Your task to perform on an android device: Open Google Chrome and click the shortcut for Amazon.com Image 0: 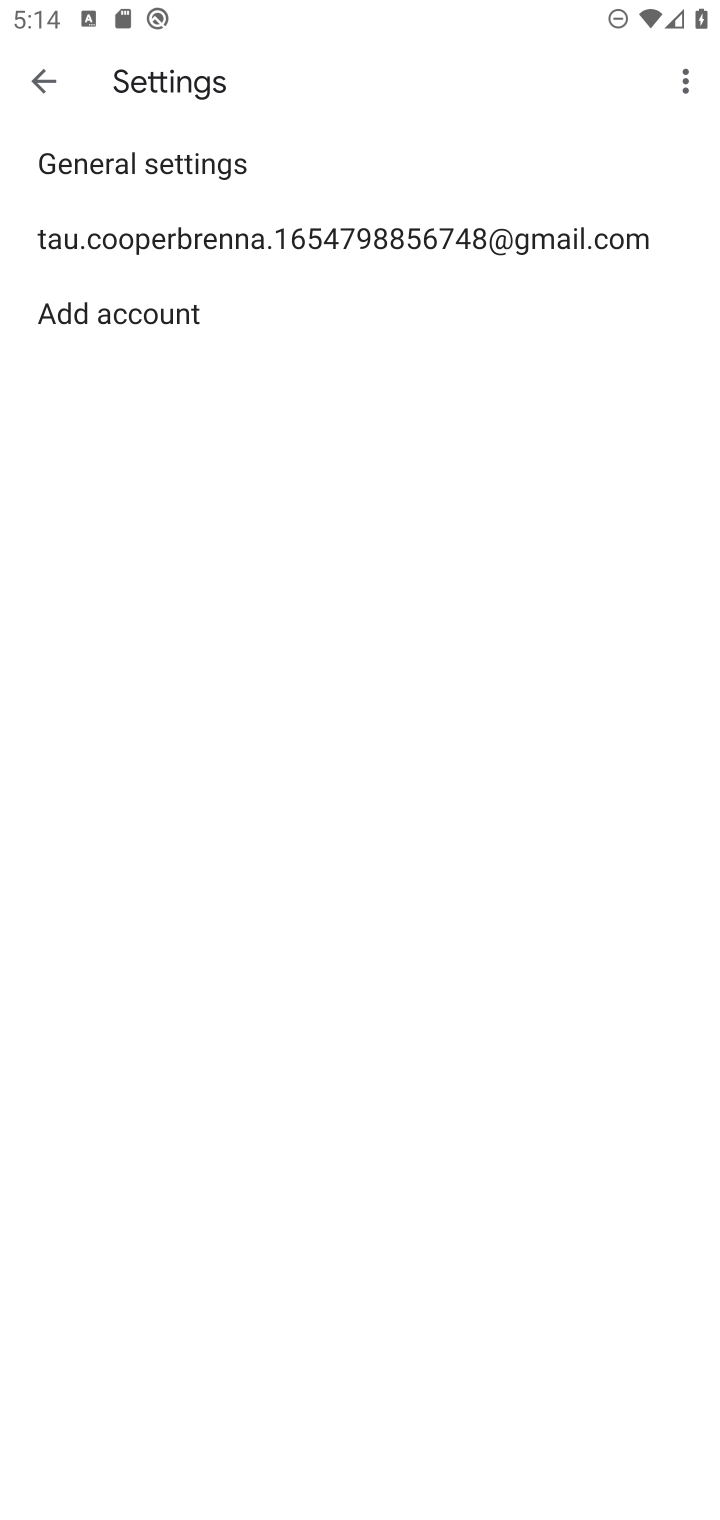
Step 0: press home button
Your task to perform on an android device: Open Google Chrome and click the shortcut for Amazon.com Image 1: 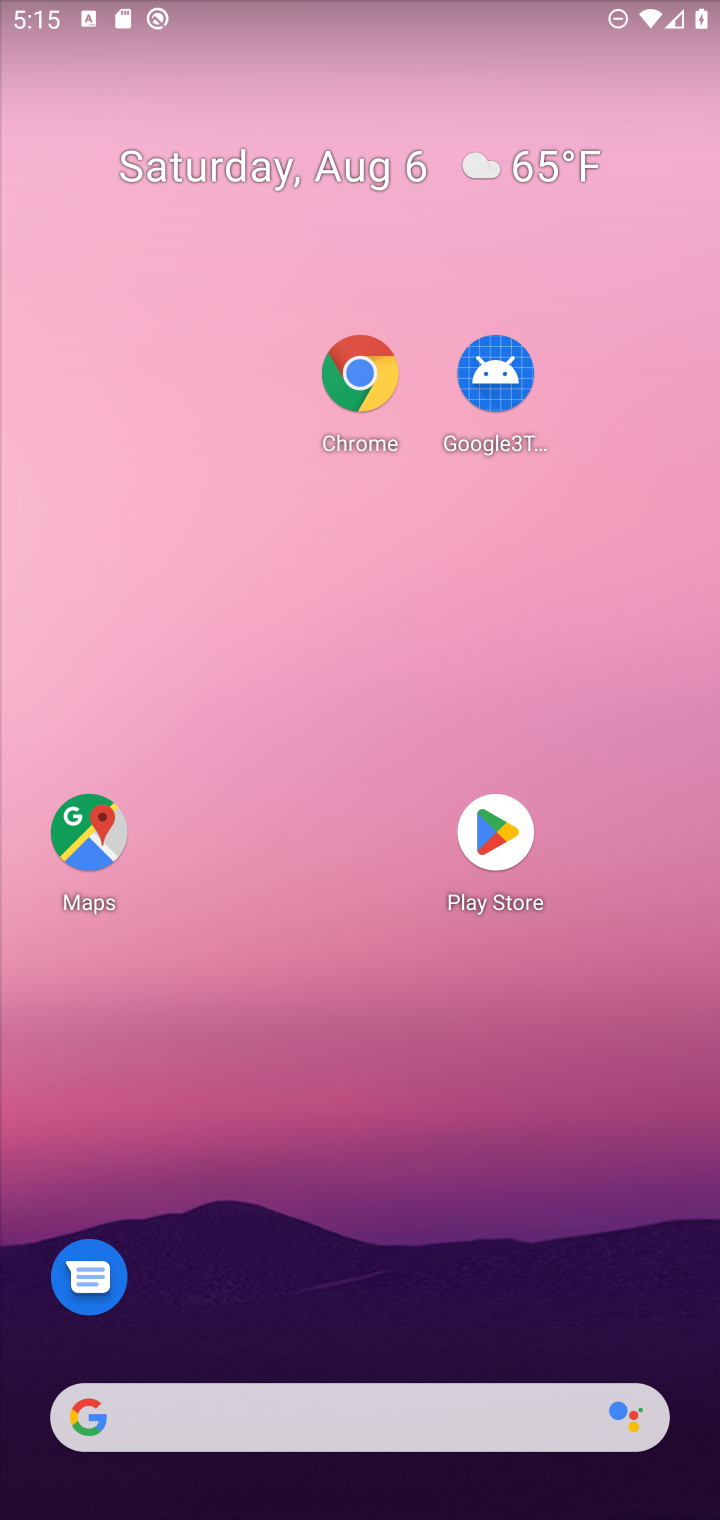
Step 1: drag from (416, 1408) to (418, 178)
Your task to perform on an android device: Open Google Chrome and click the shortcut for Amazon.com Image 2: 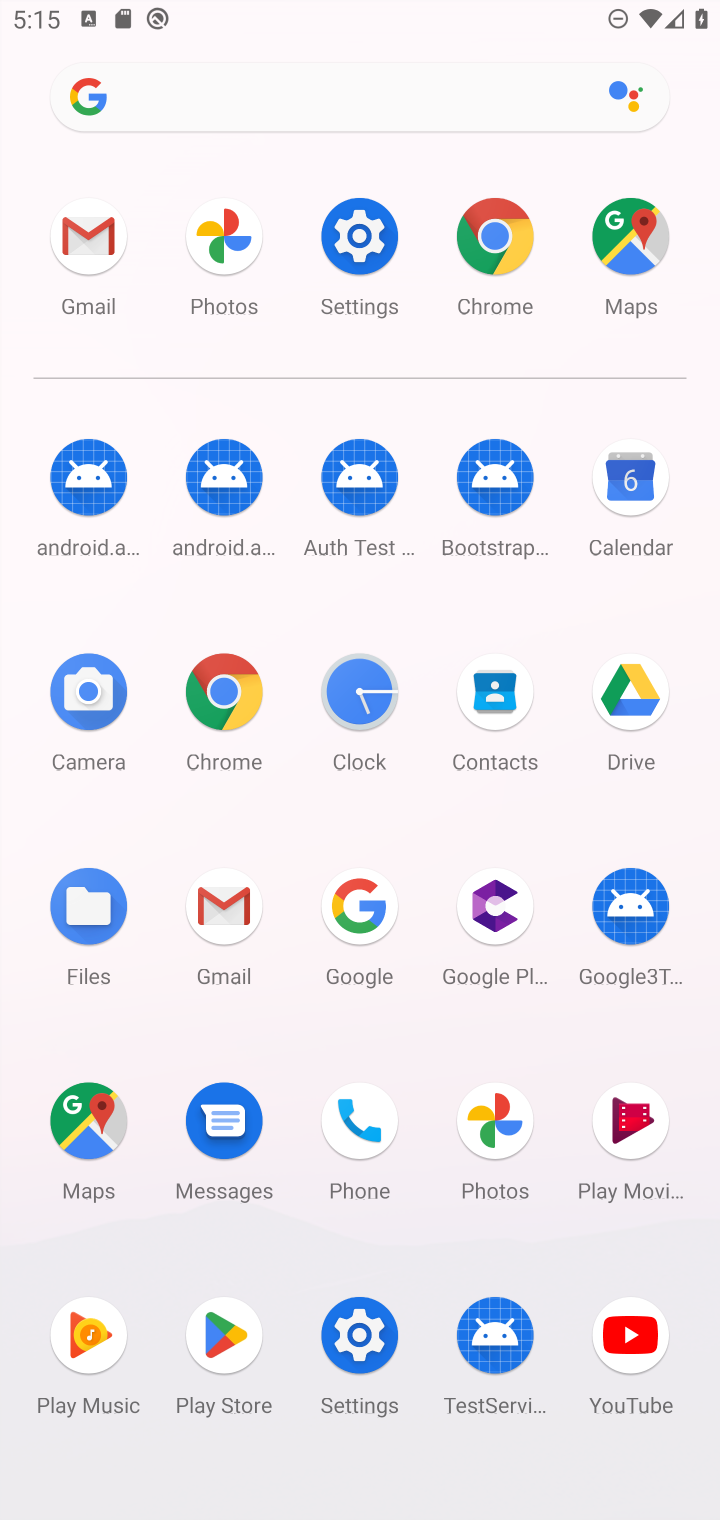
Step 2: click (223, 663)
Your task to perform on an android device: Open Google Chrome and click the shortcut for Amazon.com Image 3: 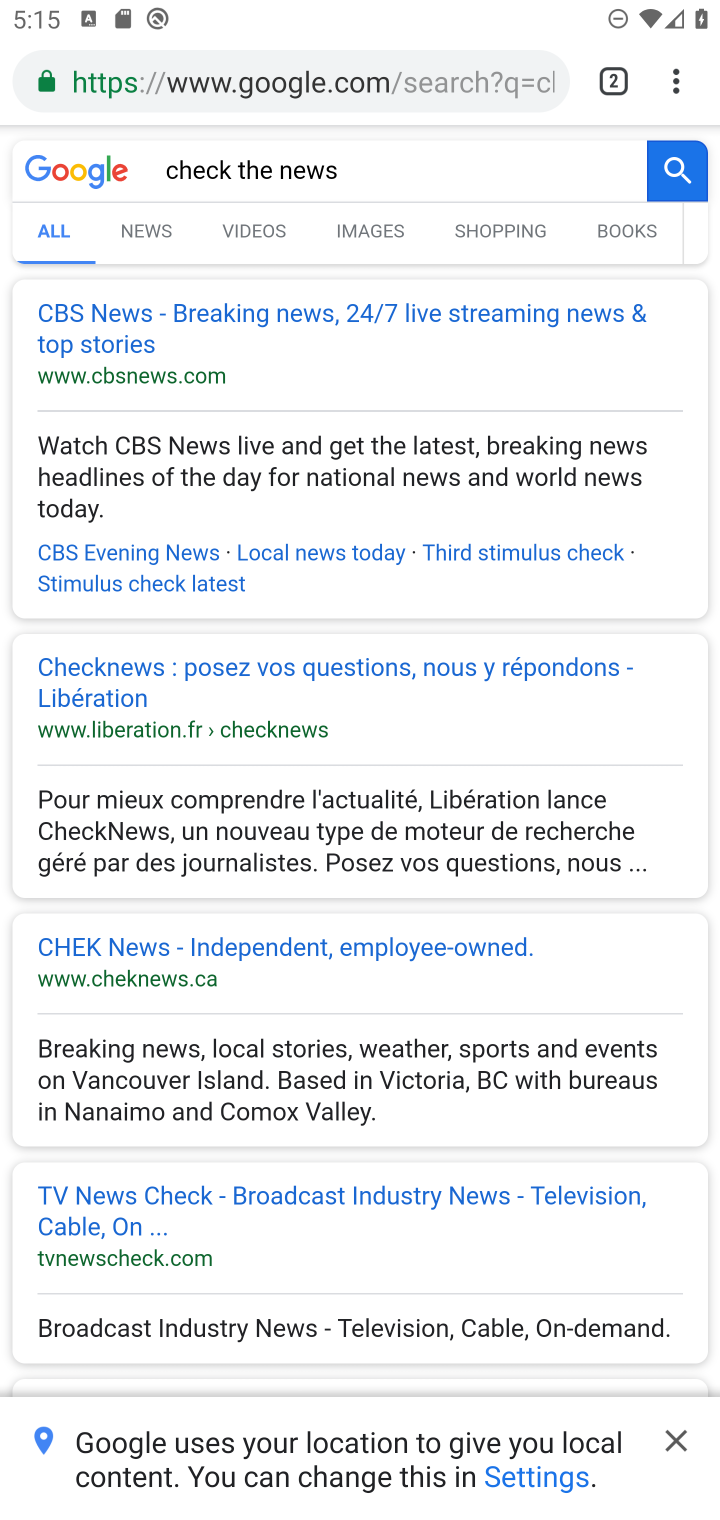
Step 3: drag from (659, 69) to (625, 161)
Your task to perform on an android device: Open Google Chrome and click the shortcut for Amazon.com Image 4: 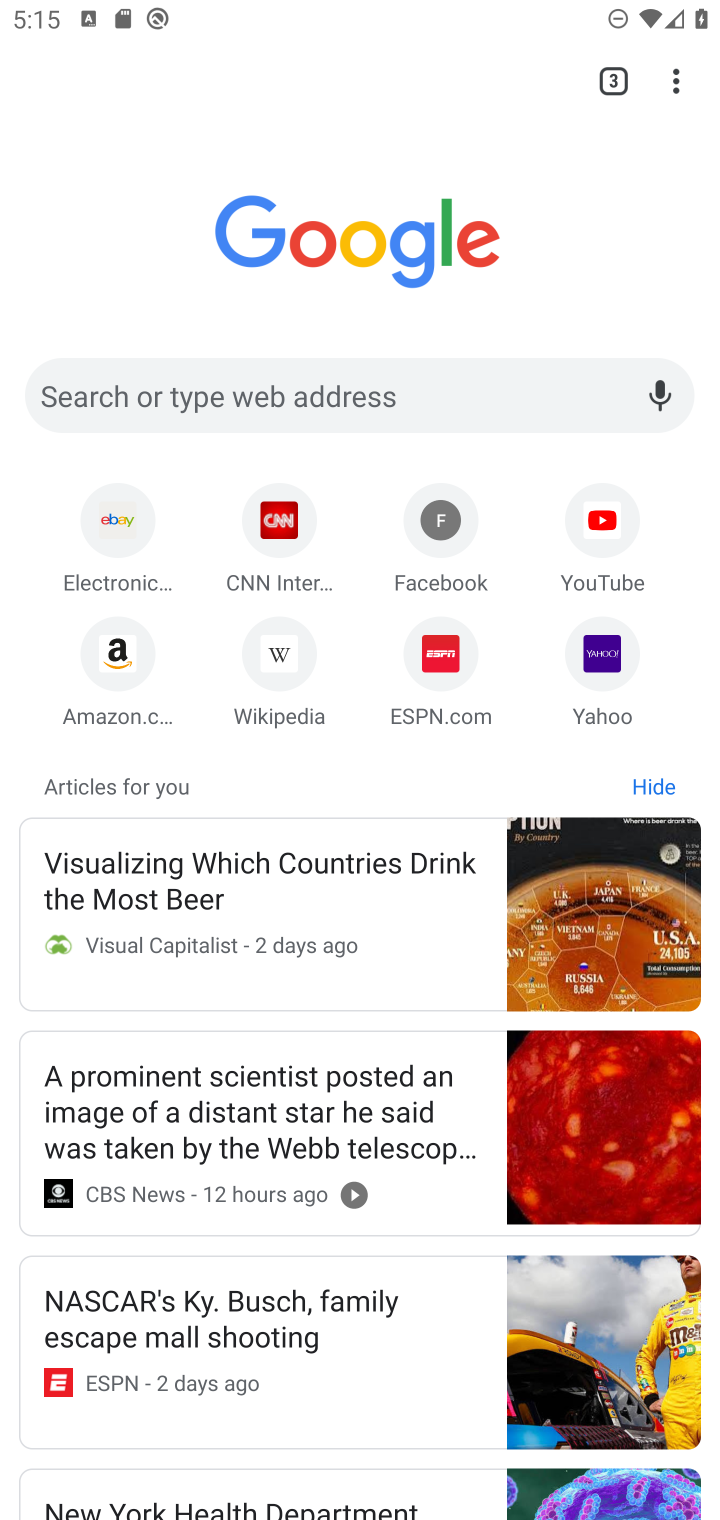
Step 4: click (145, 660)
Your task to perform on an android device: Open Google Chrome and click the shortcut for Amazon.com Image 5: 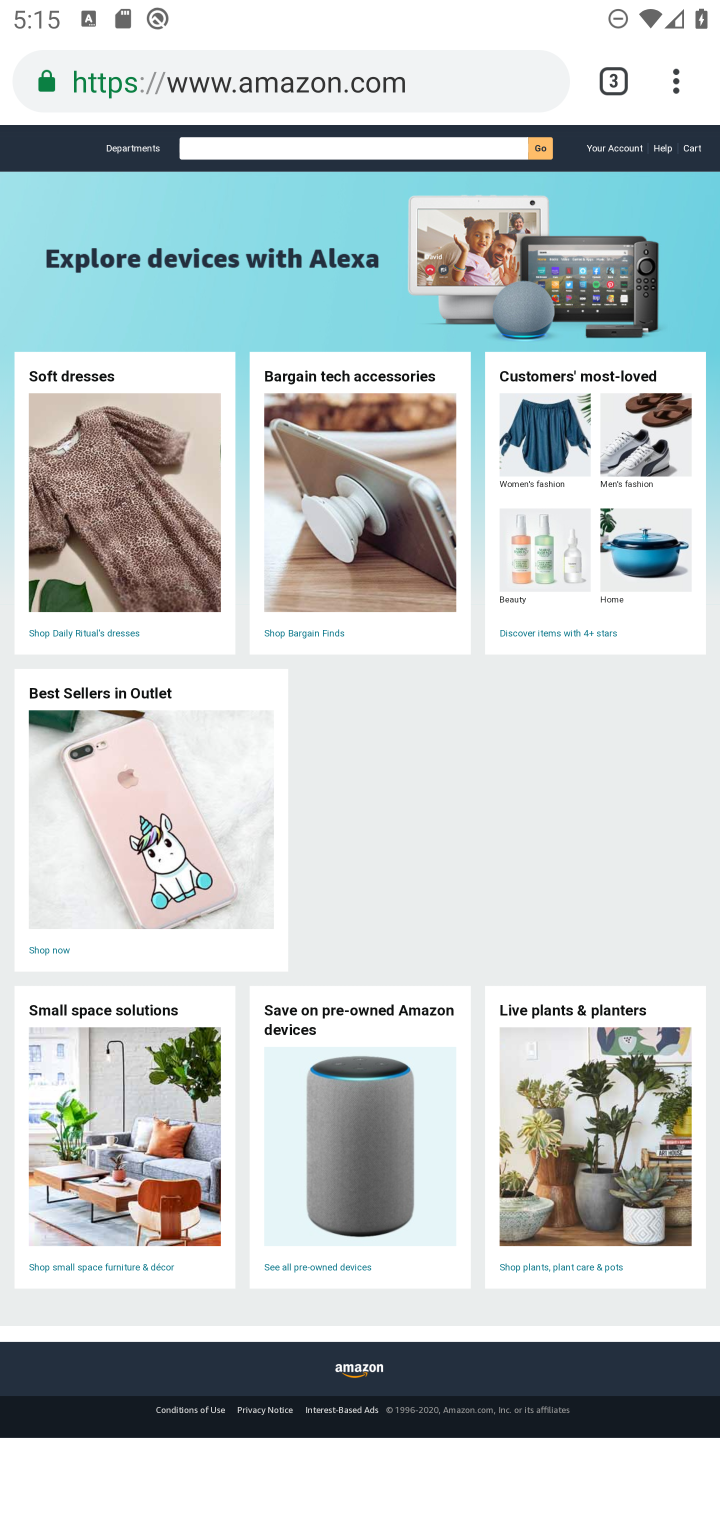
Step 5: drag from (678, 79) to (373, 832)
Your task to perform on an android device: Open Google Chrome and click the shortcut for Amazon.com Image 6: 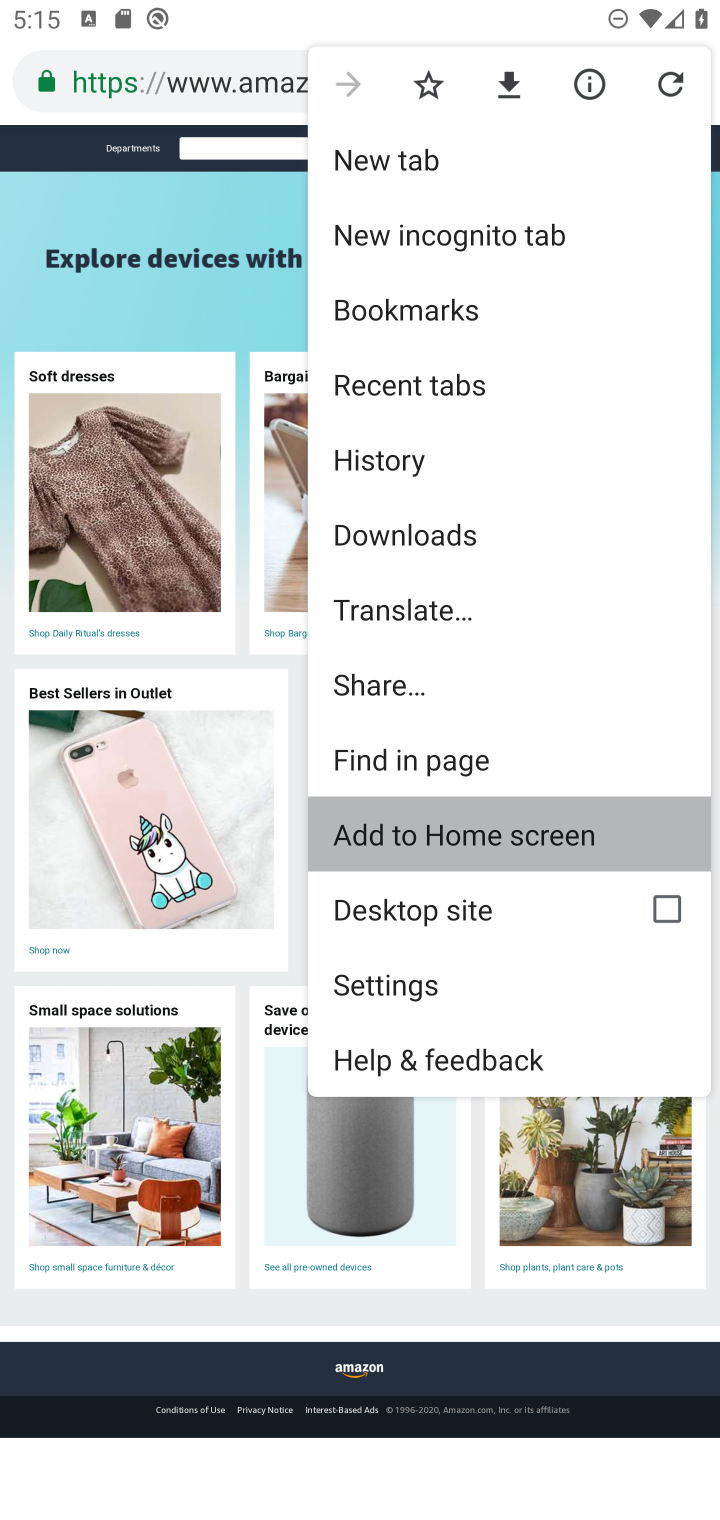
Step 6: click (373, 832)
Your task to perform on an android device: Open Google Chrome and click the shortcut for Amazon.com Image 7: 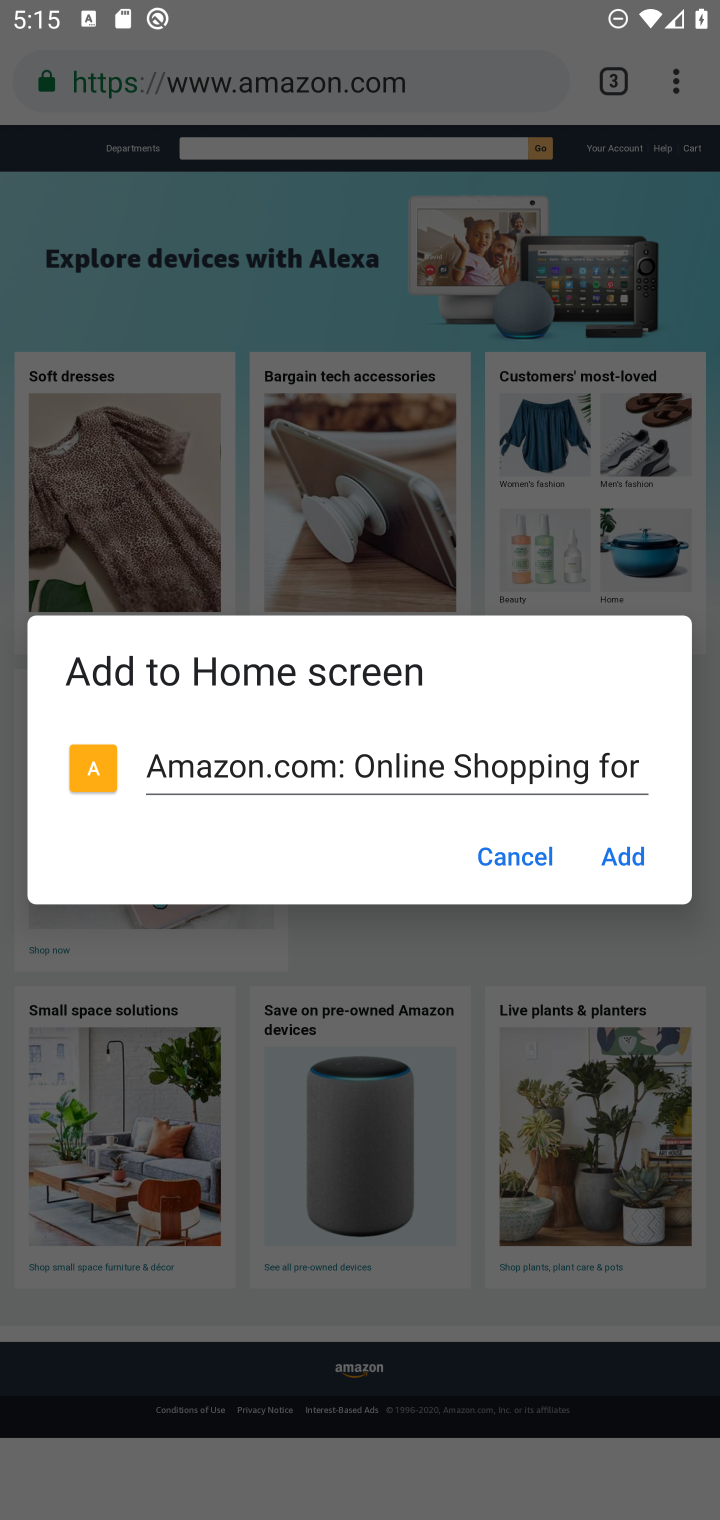
Step 7: click (621, 855)
Your task to perform on an android device: Open Google Chrome and click the shortcut for Amazon.com Image 8: 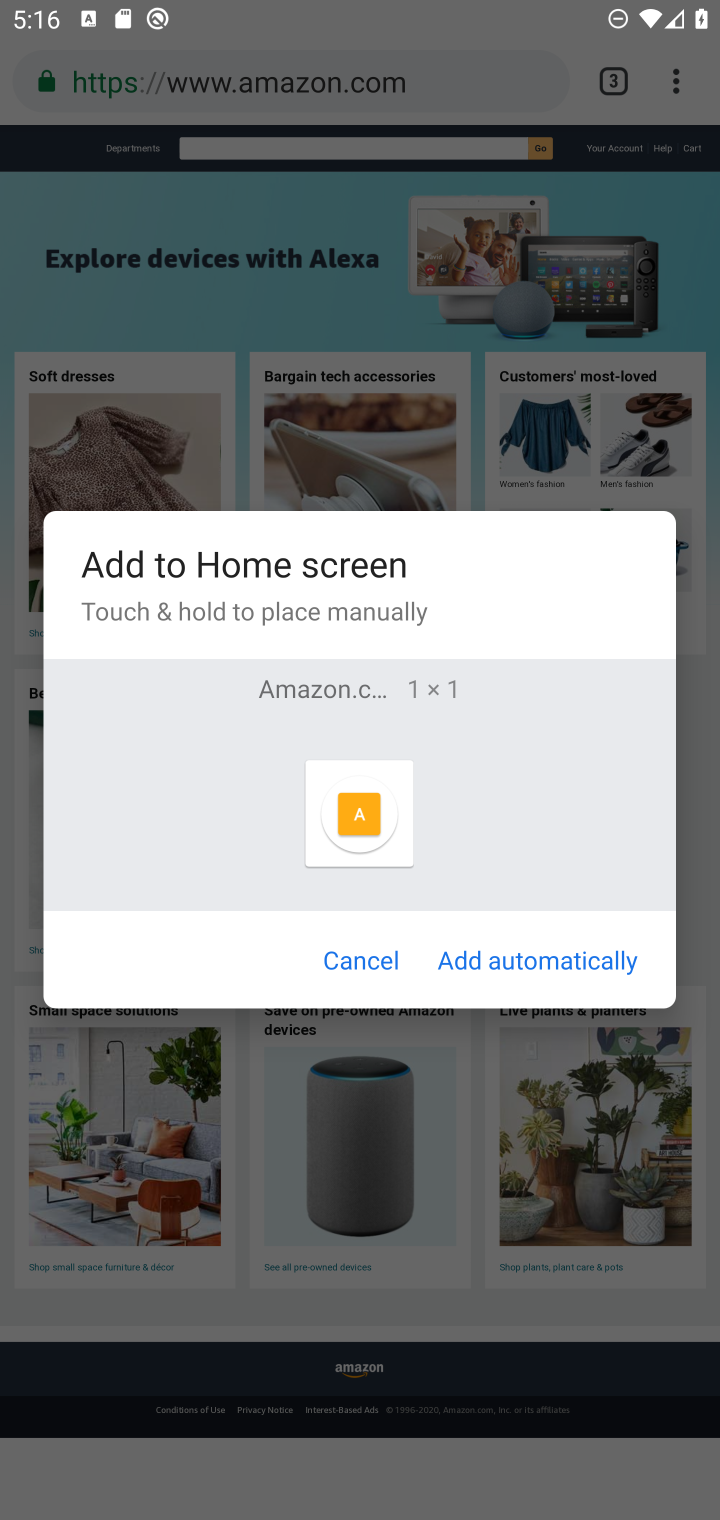
Step 8: click (506, 964)
Your task to perform on an android device: Open Google Chrome and click the shortcut for Amazon.com Image 9: 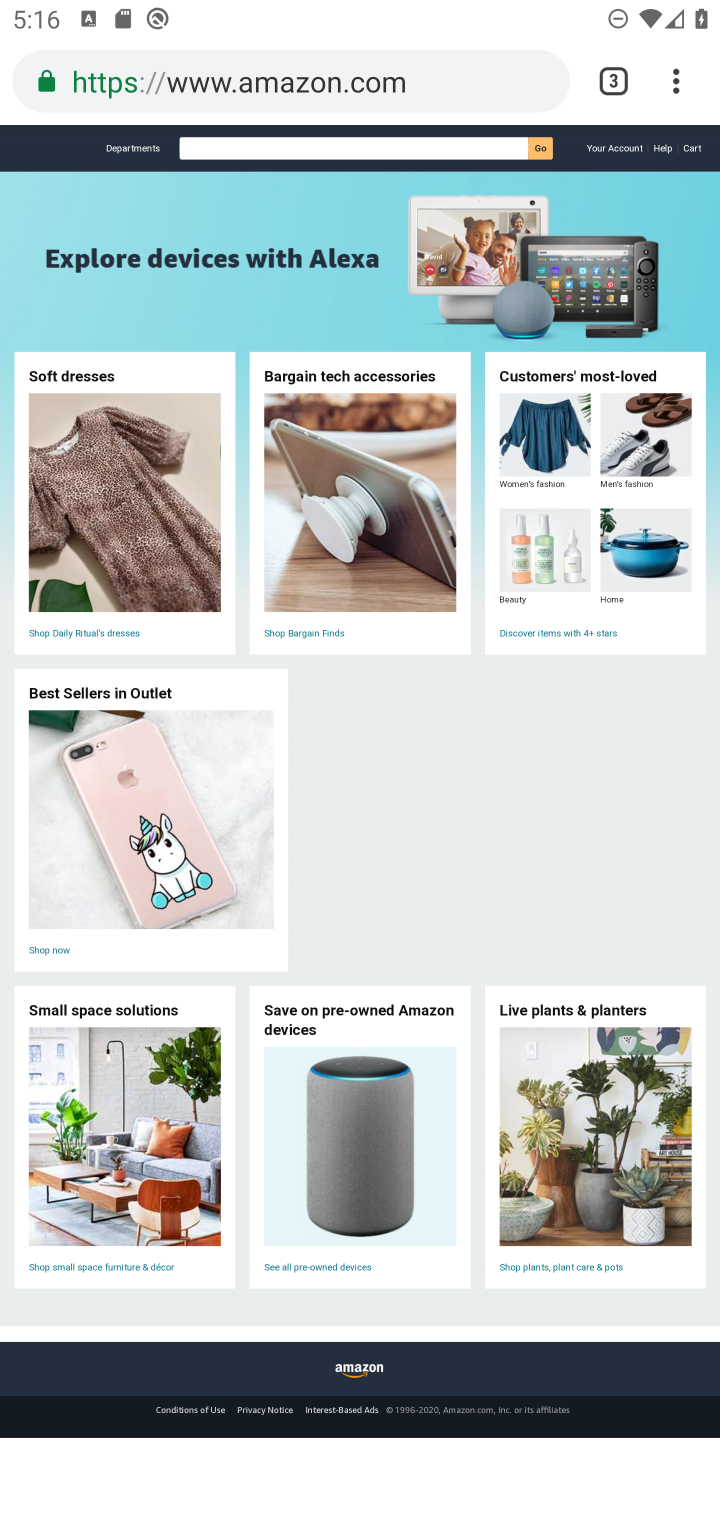
Step 9: task complete